Your task to perform on an android device: Open Chrome and go to the settings page Image 0: 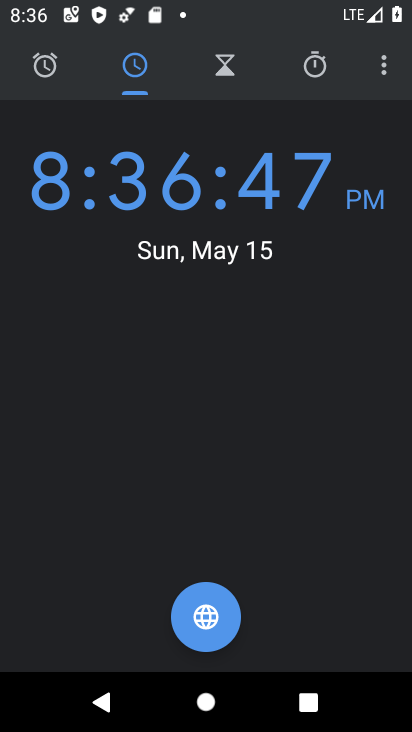
Step 0: press home button
Your task to perform on an android device: Open Chrome and go to the settings page Image 1: 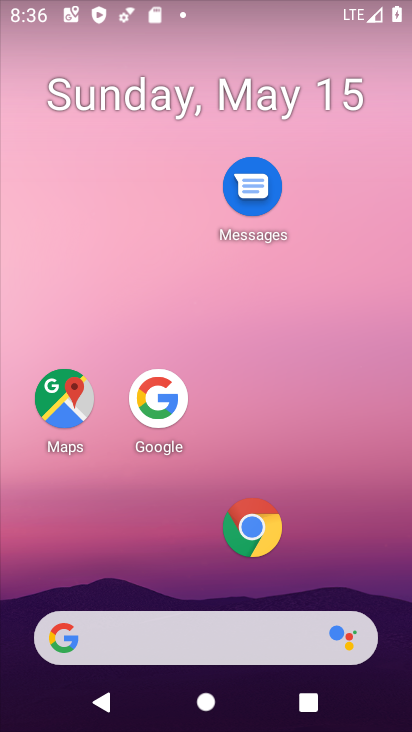
Step 1: click (254, 538)
Your task to perform on an android device: Open Chrome and go to the settings page Image 2: 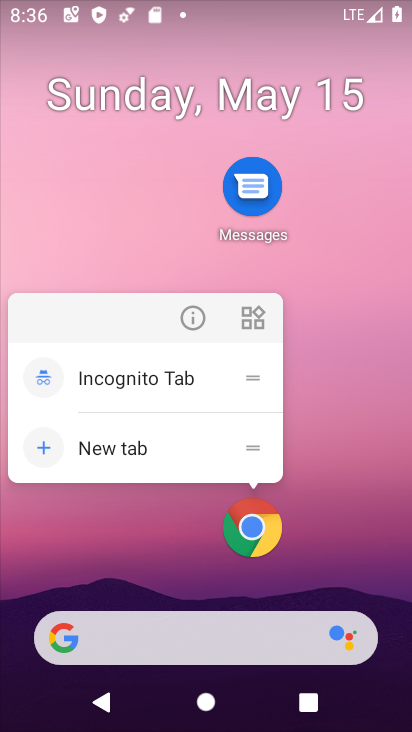
Step 2: click (247, 526)
Your task to perform on an android device: Open Chrome and go to the settings page Image 3: 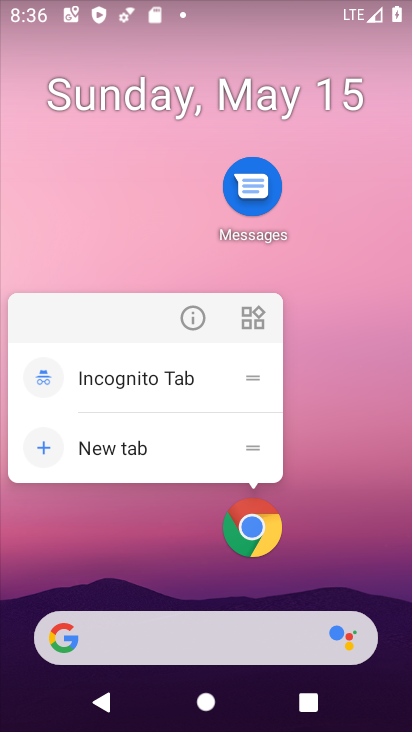
Step 3: click (257, 530)
Your task to perform on an android device: Open Chrome and go to the settings page Image 4: 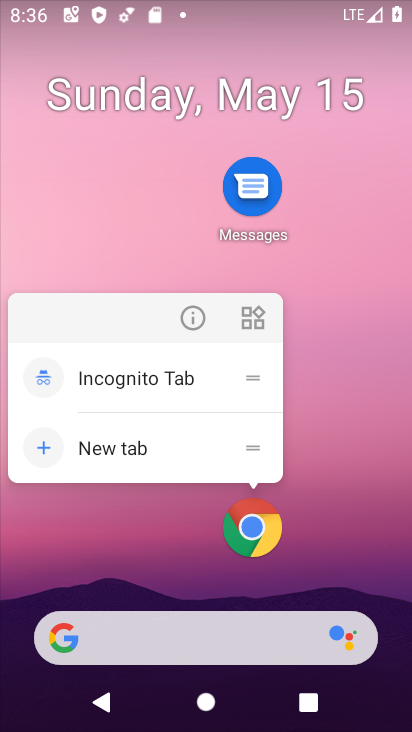
Step 4: click (257, 539)
Your task to perform on an android device: Open Chrome and go to the settings page Image 5: 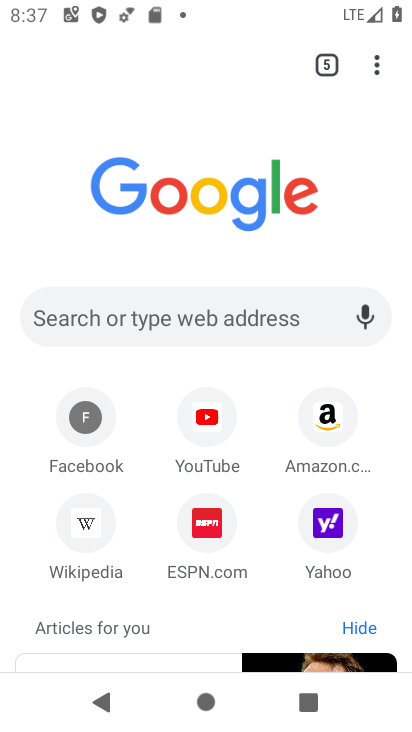
Step 5: task complete